Your task to perform on an android device: turn off location Image 0: 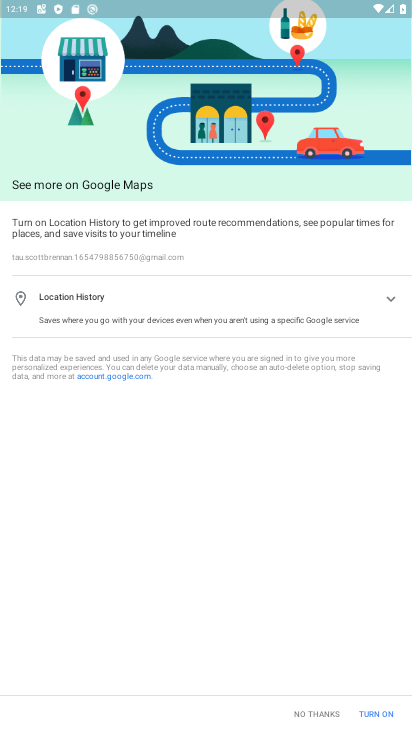
Step 0: press home button
Your task to perform on an android device: turn off location Image 1: 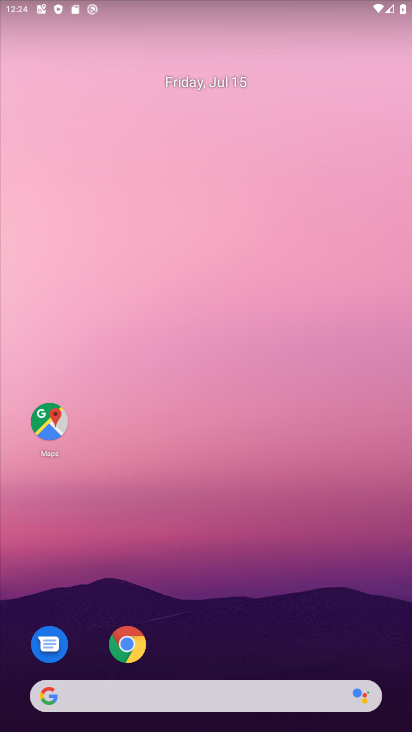
Step 1: drag from (101, 525) to (336, 139)
Your task to perform on an android device: turn off location Image 2: 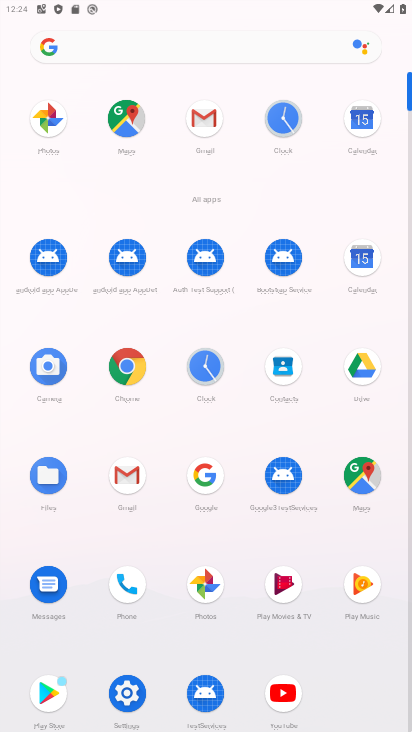
Step 2: click (125, 680)
Your task to perform on an android device: turn off location Image 3: 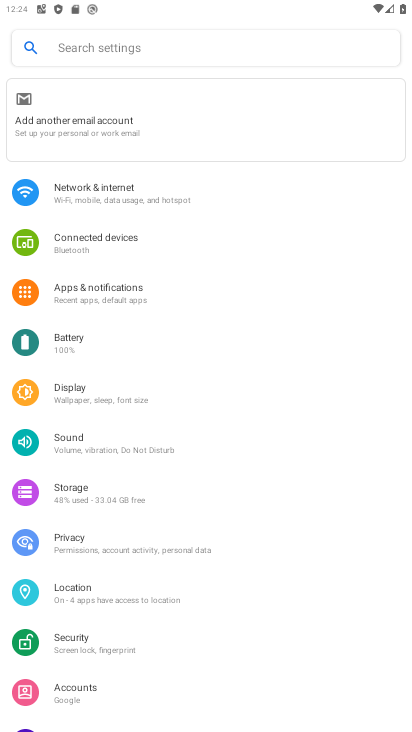
Step 3: task complete